Your task to perform on an android device: turn off data saver in the chrome app Image 0: 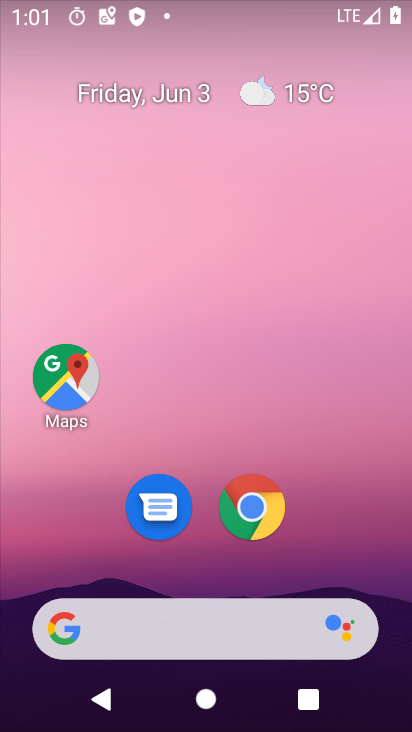
Step 0: drag from (392, 619) to (268, 38)
Your task to perform on an android device: turn off data saver in the chrome app Image 1: 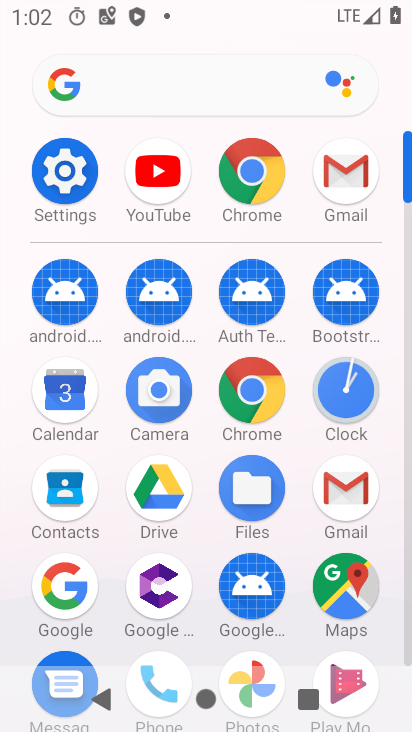
Step 1: click (260, 176)
Your task to perform on an android device: turn off data saver in the chrome app Image 2: 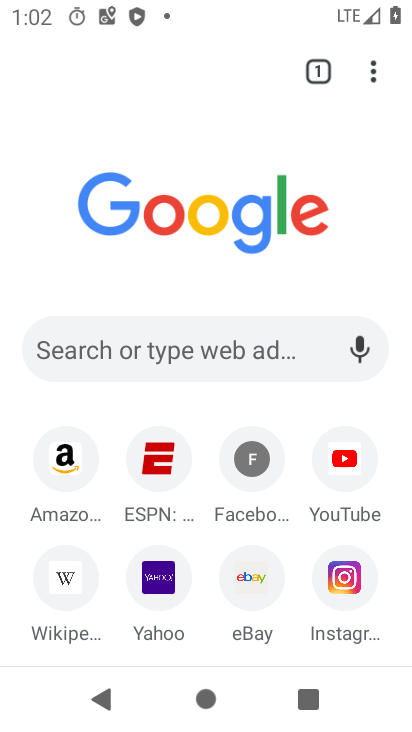
Step 2: click (383, 55)
Your task to perform on an android device: turn off data saver in the chrome app Image 3: 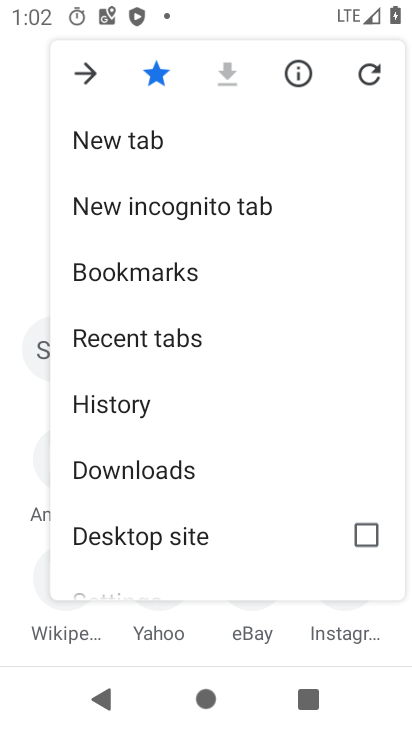
Step 3: drag from (214, 462) to (207, 129)
Your task to perform on an android device: turn off data saver in the chrome app Image 4: 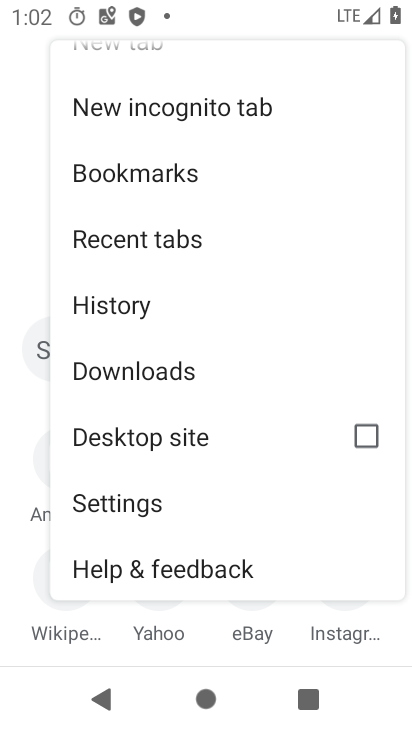
Step 4: click (129, 493)
Your task to perform on an android device: turn off data saver in the chrome app Image 5: 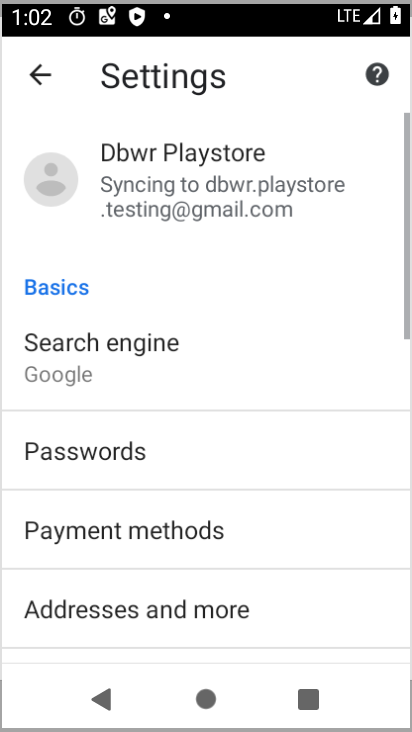
Step 5: drag from (135, 596) to (137, 67)
Your task to perform on an android device: turn off data saver in the chrome app Image 6: 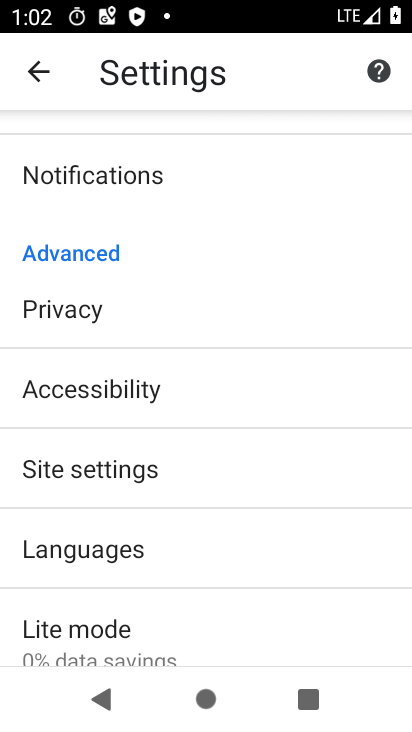
Step 6: click (91, 656)
Your task to perform on an android device: turn off data saver in the chrome app Image 7: 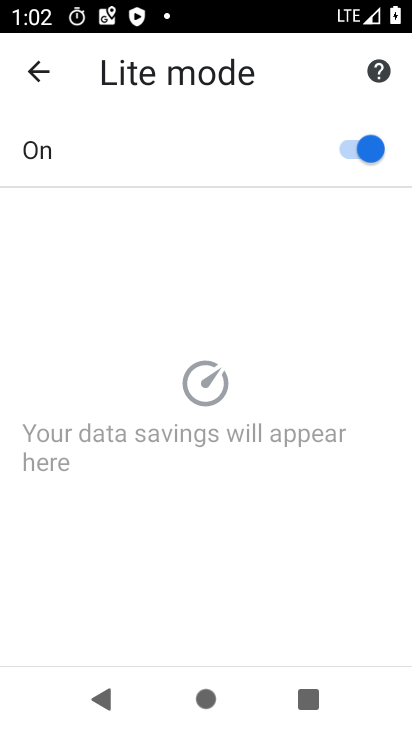
Step 7: click (359, 135)
Your task to perform on an android device: turn off data saver in the chrome app Image 8: 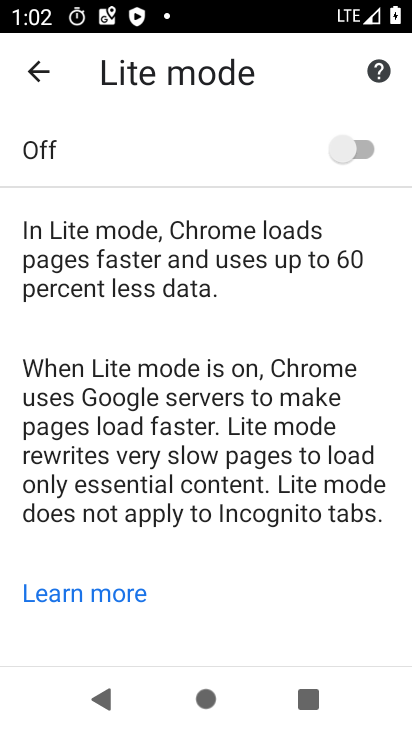
Step 8: task complete